Your task to perform on an android device: show emergency info Image 0: 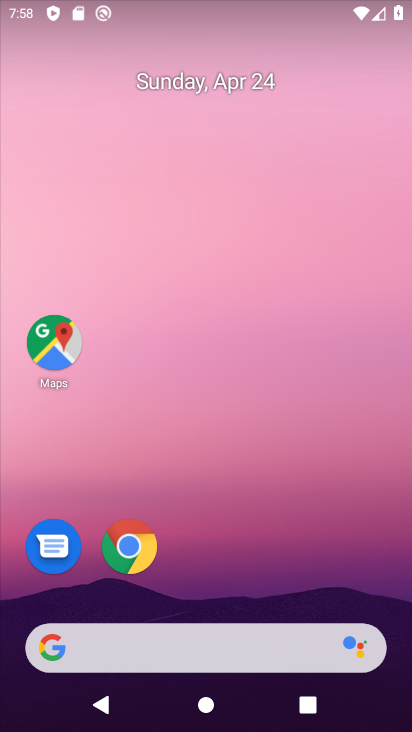
Step 0: drag from (268, 423) to (303, 237)
Your task to perform on an android device: show emergency info Image 1: 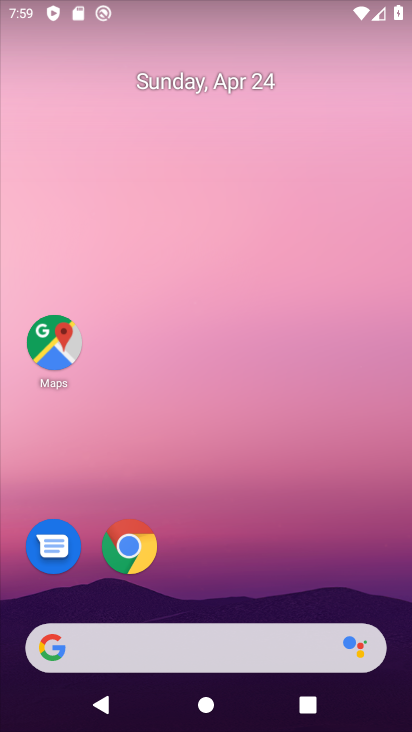
Step 1: drag from (199, 587) to (283, 8)
Your task to perform on an android device: show emergency info Image 2: 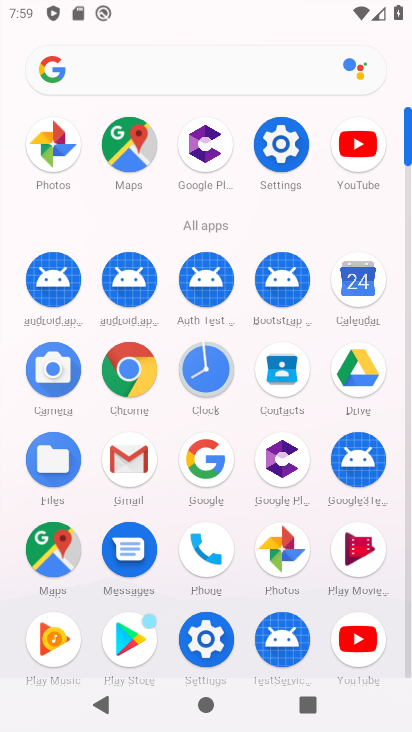
Step 2: click (274, 134)
Your task to perform on an android device: show emergency info Image 3: 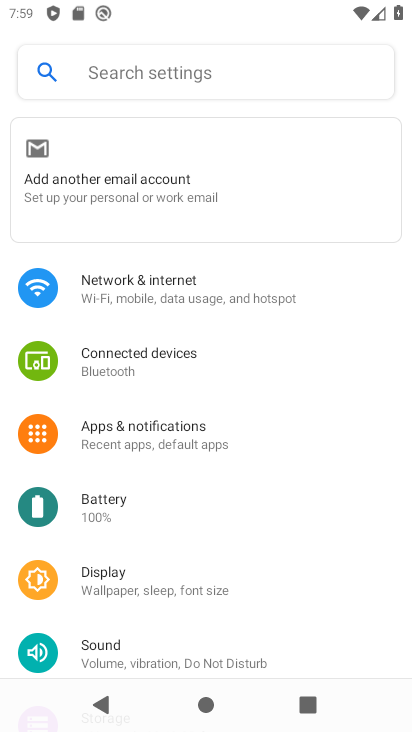
Step 3: drag from (204, 573) to (315, 5)
Your task to perform on an android device: show emergency info Image 4: 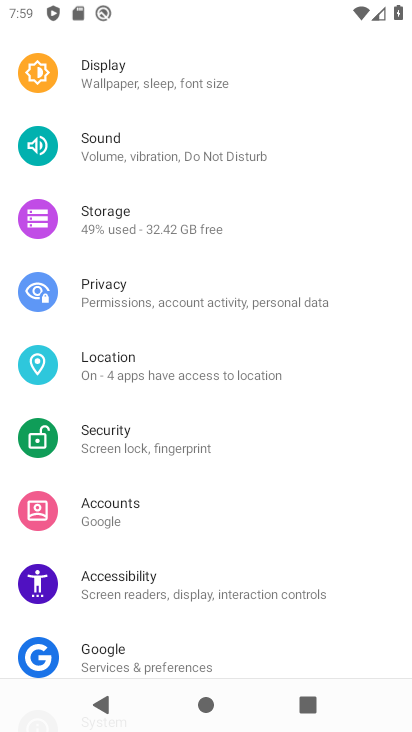
Step 4: drag from (195, 561) to (331, 124)
Your task to perform on an android device: show emergency info Image 5: 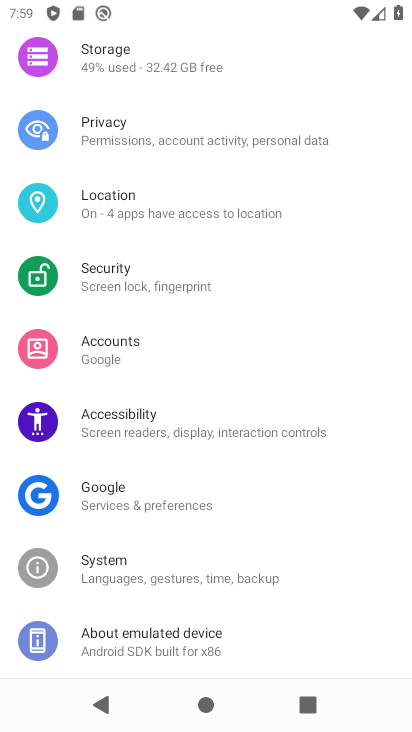
Step 5: click (155, 642)
Your task to perform on an android device: show emergency info Image 6: 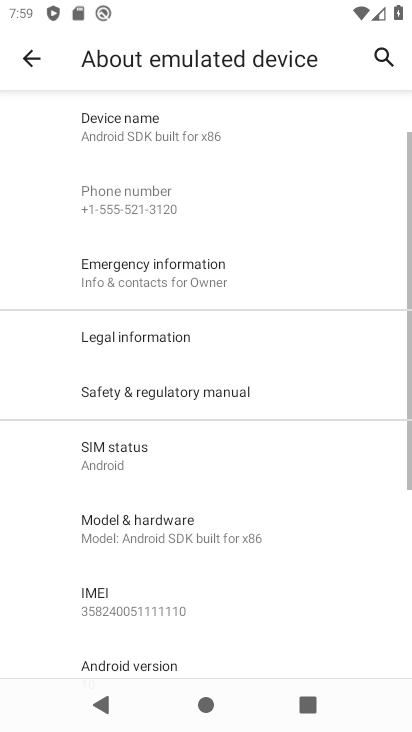
Step 6: click (155, 278)
Your task to perform on an android device: show emergency info Image 7: 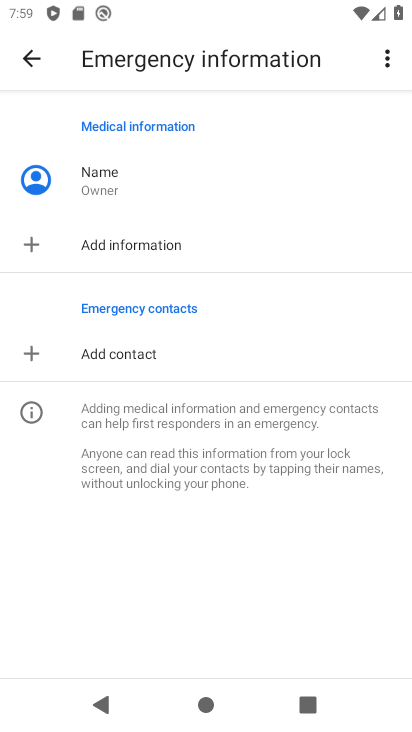
Step 7: task complete